Your task to perform on an android device: Open the stopwatch Image 0: 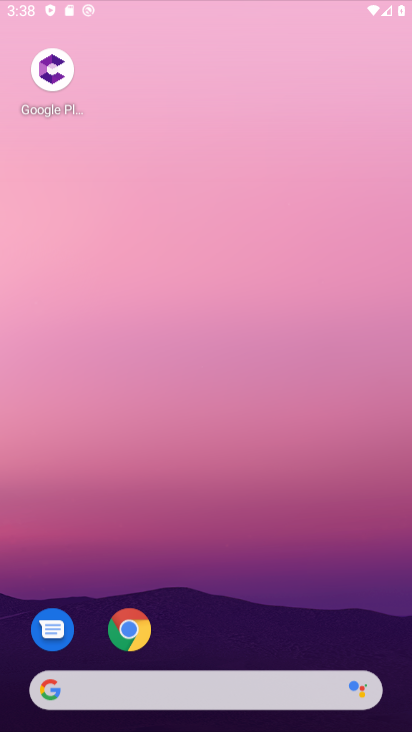
Step 0: press back button
Your task to perform on an android device: Open the stopwatch Image 1: 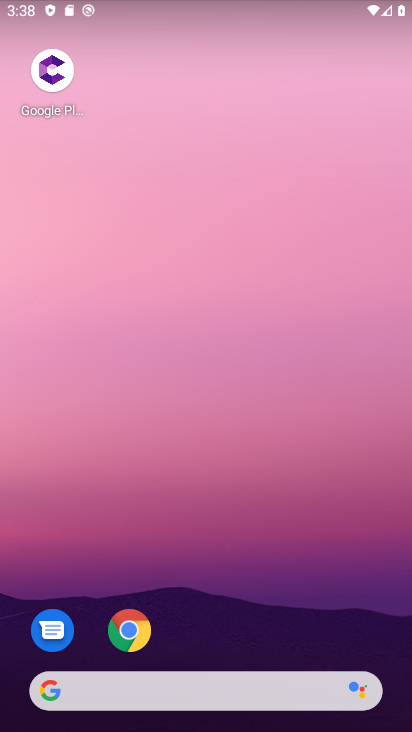
Step 1: drag from (192, 228) to (177, 140)
Your task to perform on an android device: Open the stopwatch Image 2: 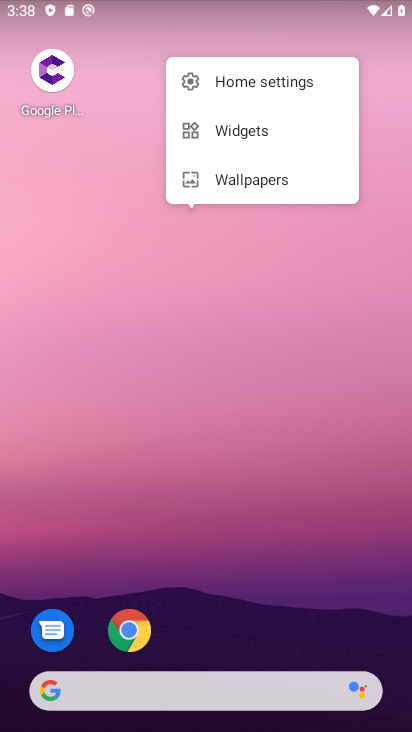
Step 2: click (132, 62)
Your task to perform on an android device: Open the stopwatch Image 3: 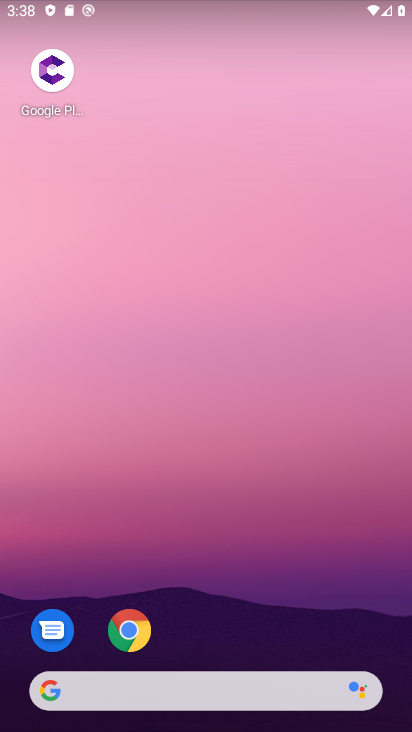
Step 3: drag from (232, 367) to (190, 7)
Your task to perform on an android device: Open the stopwatch Image 4: 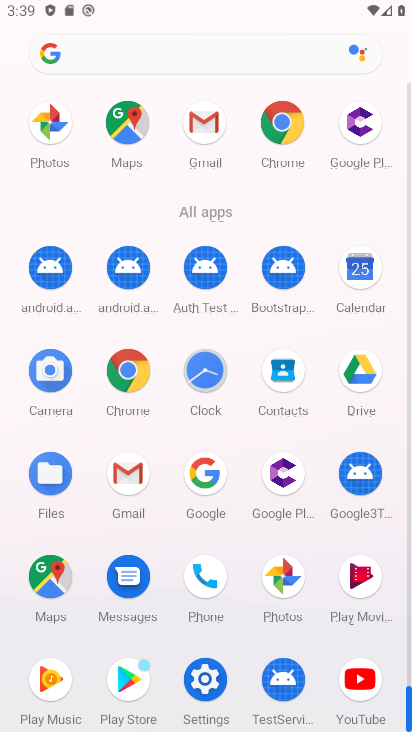
Step 4: click (206, 375)
Your task to perform on an android device: Open the stopwatch Image 5: 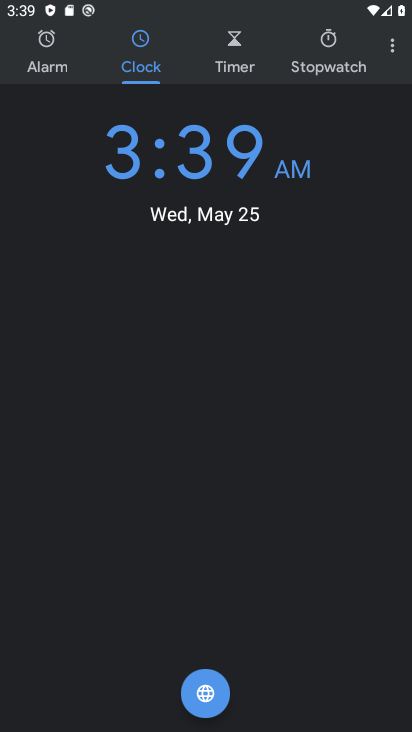
Step 5: click (321, 38)
Your task to perform on an android device: Open the stopwatch Image 6: 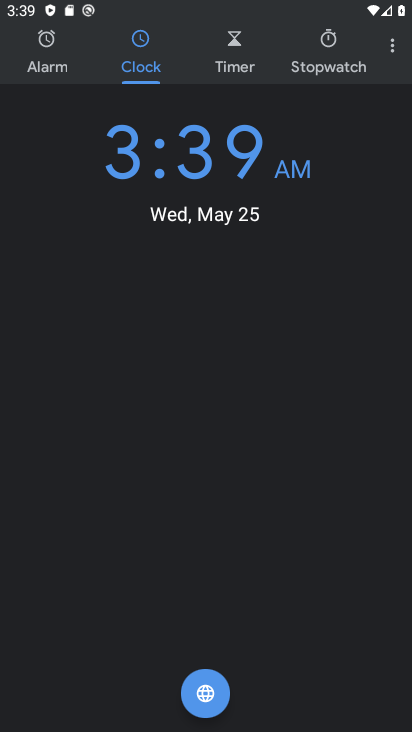
Step 6: click (327, 51)
Your task to perform on an android device: Open the stopwatch Image 7: 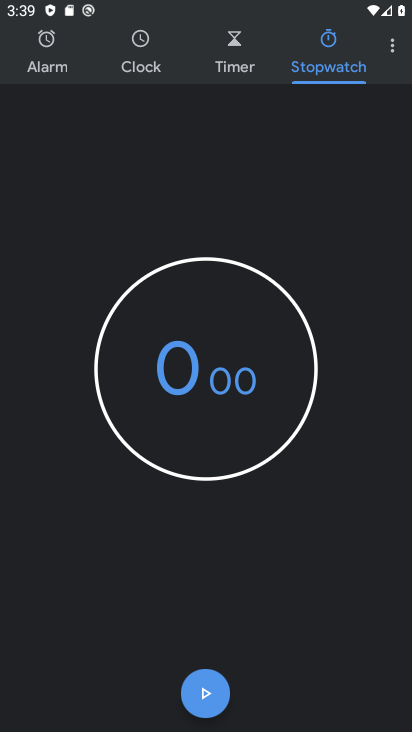
Step 7: task complete